Your task to perform on an android device: Open Yahoo.com Image 0: 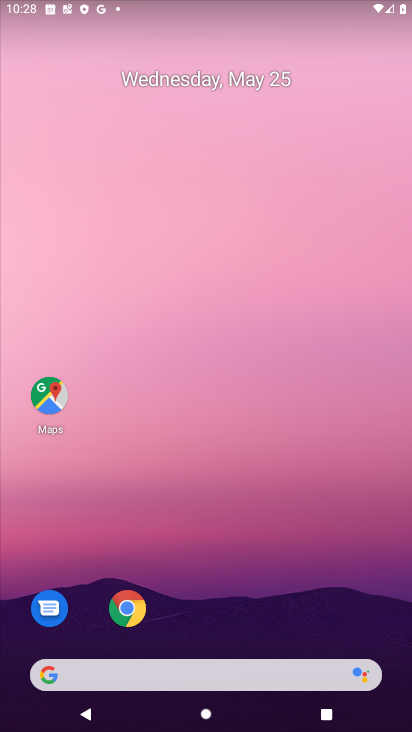
Step 0: click (123, 615)
Your task to perform on an android device: Open Yahoo.com Image 1: 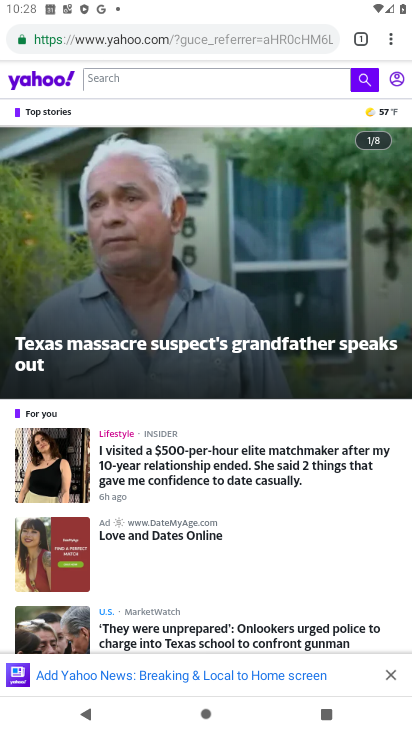
Step 1: task complete